Your task to perform on an android device: Open wifi settings Image 0: 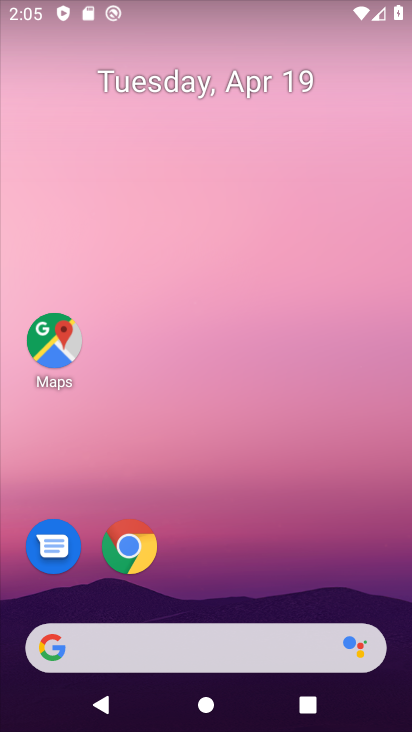
Step 0: drag from (182, 630) to (180, 169)
Your task to perform on an android device: Open wifi settings Image 1: 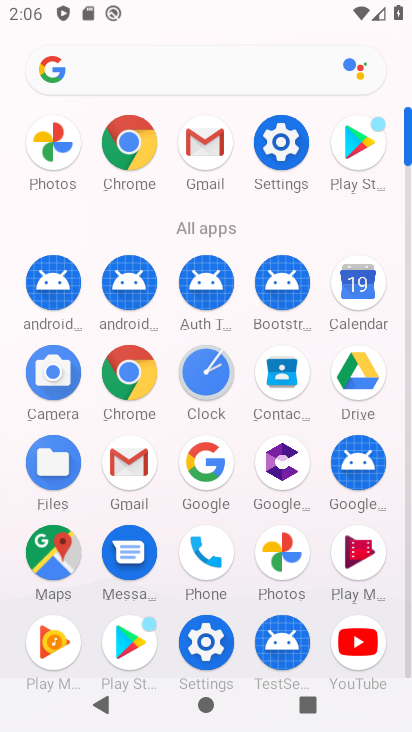
Step 1: click (286, 153)
Your task to perform on an android device: Open wifi settings Image 2: 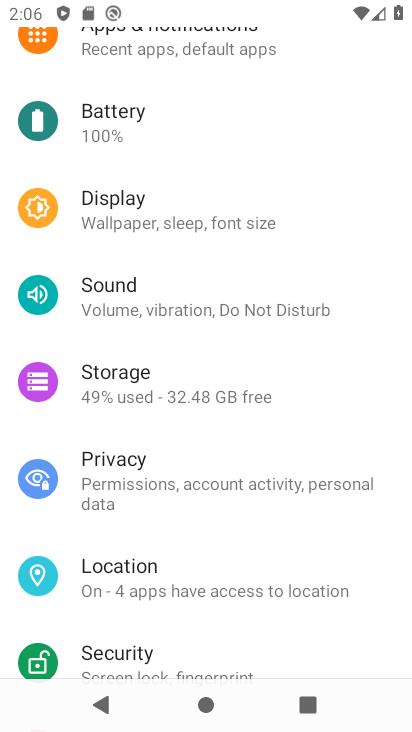
Step 2: drag from (177, 144) to (201, 576)
Your task to perform on an android device: Open wifi settings Image 3: 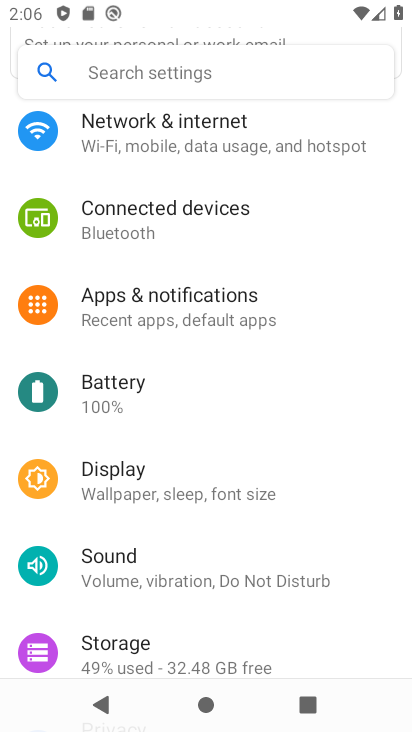
Step 3: drag from (169, 192) to (175, 547)
Your task to perform on an android device: Open wifi settings Image 4: 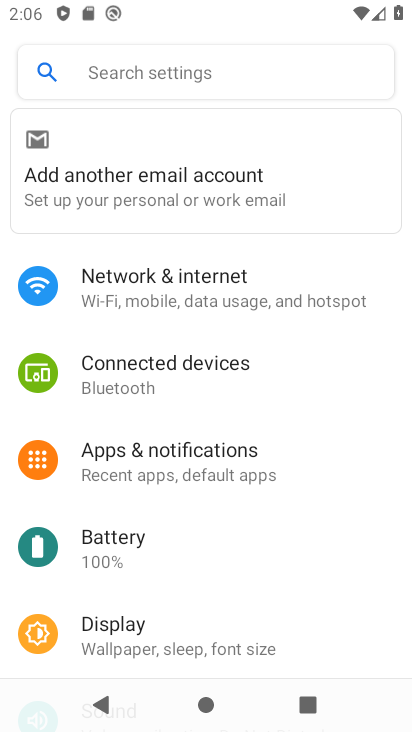
Step 4: click (153, 298)
Your task to perform on an android device: Open wifi settings Image 5: 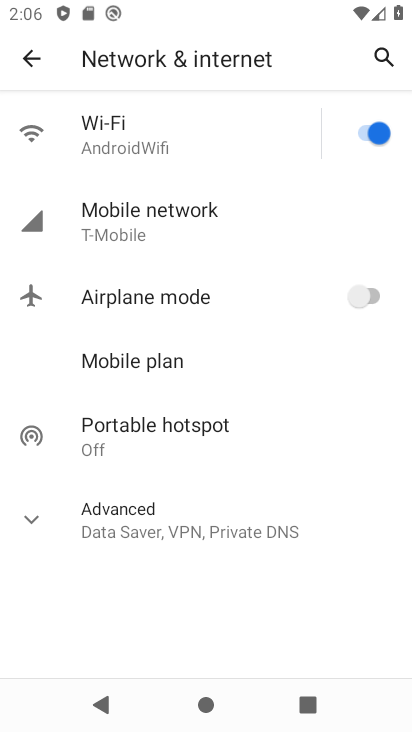
Step 5: click (148, 143)
Your task to perform on an android device: Open wifi settings Image 6: 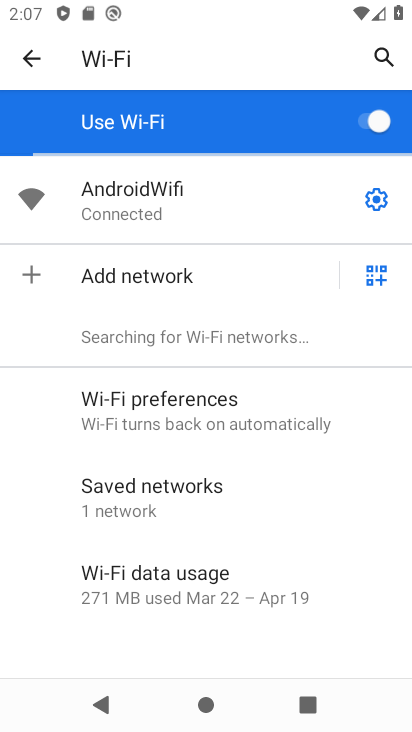
Step 6: task complete